Your task to perform on an android device: Show me popular games on the Play Store Image 0: 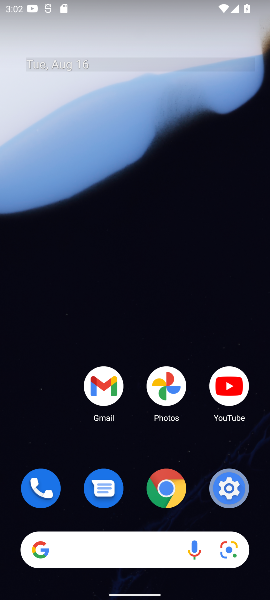
Step 0: drag from (85, 324) to (100, 115)
Your task to perform on an android device: Show me popular games on the Play Store Image 1: 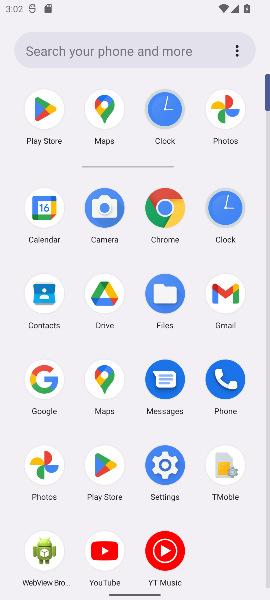
Step 1: click (85, 478)
Your task to perform on an android device: Show me popular games on the Play Store Image 2: 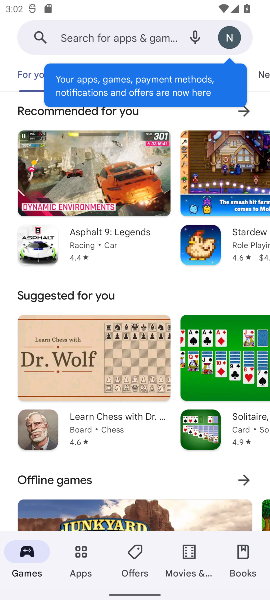
Step 2: task complete